Your task to perform on an android device: turn notification dots on Image 0: 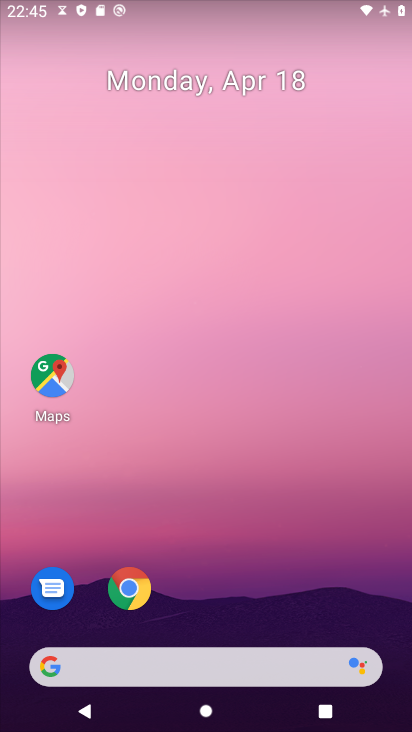
Step 0: drag from (355, 538) to (66, 3)
Your task to perform on an android device: turn notification dots on Image 1: 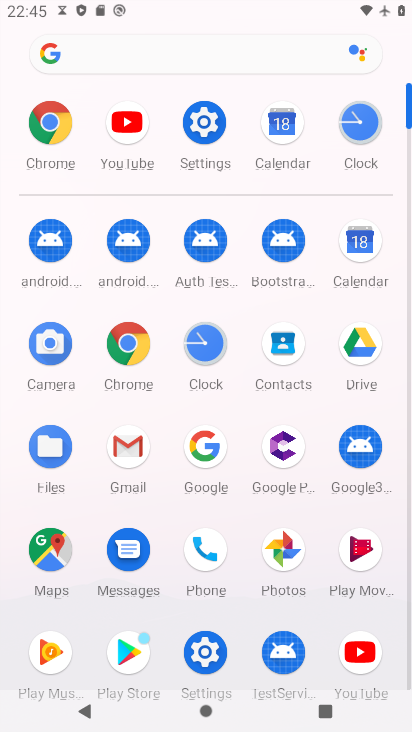
Step 1: click (206, 121)
Your task to perform on an android device: turn notification dots on Image 2: 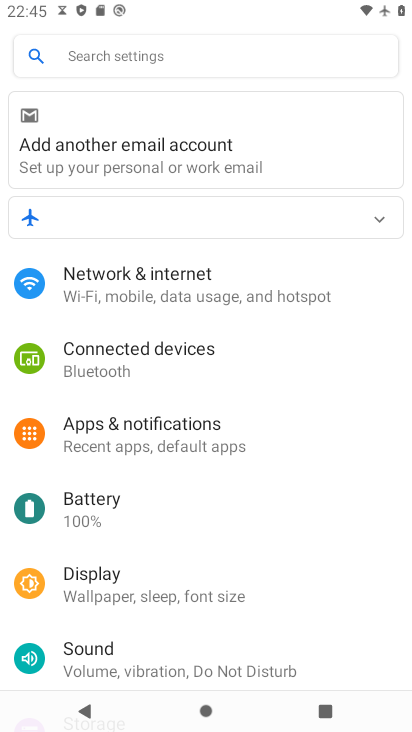
Step 2: drag from (336, 512) to (298, 108)
Your task to perform on an android device: turn notification dots on Image 3: 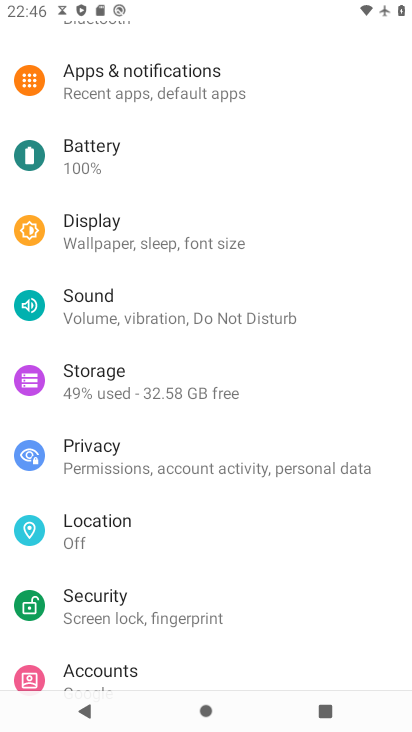
Step 3: drag from (297, 117) to (296, 395)
Your task to perform on an android device: turn notification dots on Image 4: 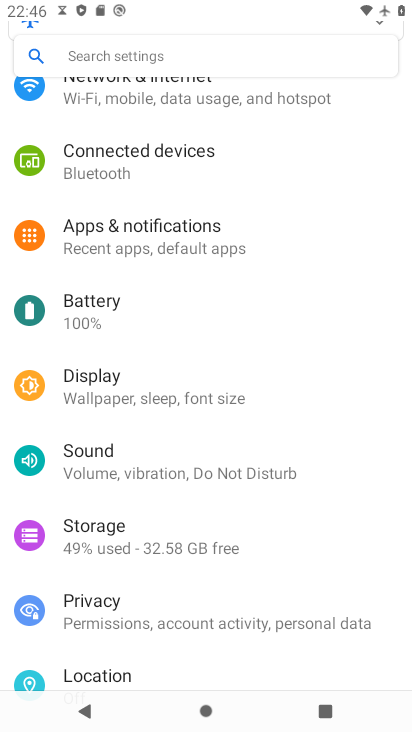
Step 4: drag from (269, 178) to (279, 412)
Your task to perform on an android device: turn notification dots on Image 5: 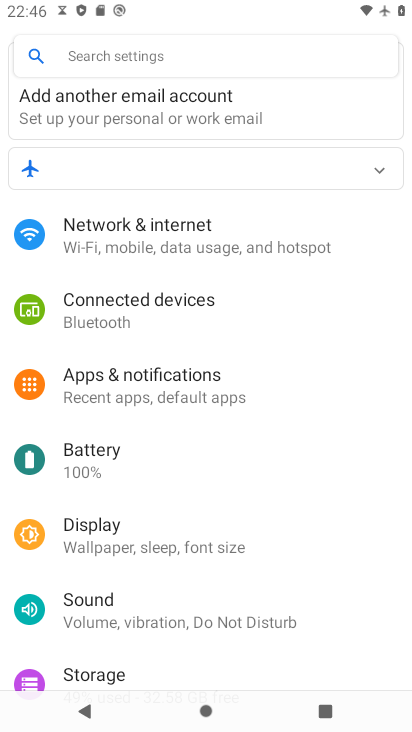
Step 5: drag from (320, 420) to (303, 114)
Your task to perform on an android device: turn notification dots on Image 6: 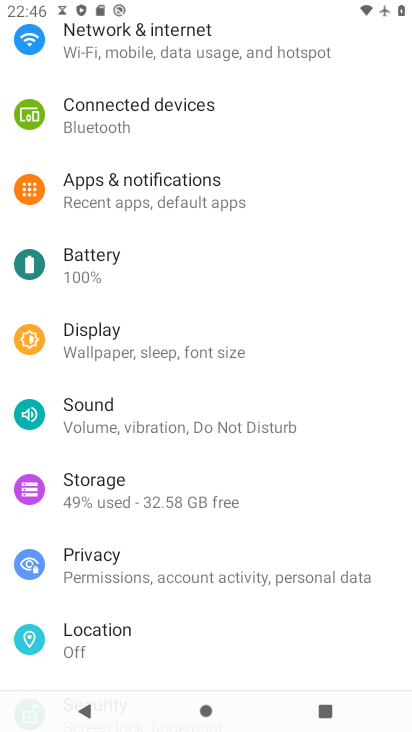
Step 6: click (160, 182)
Your task to perform on an android device: turn notification dots on Image 7: 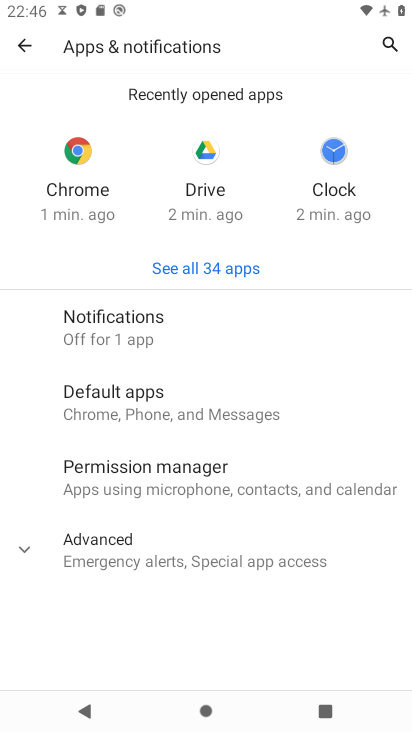
Step 7: click (176, 303)
Your task to perform on an android device: turn notification dots on Image 8: 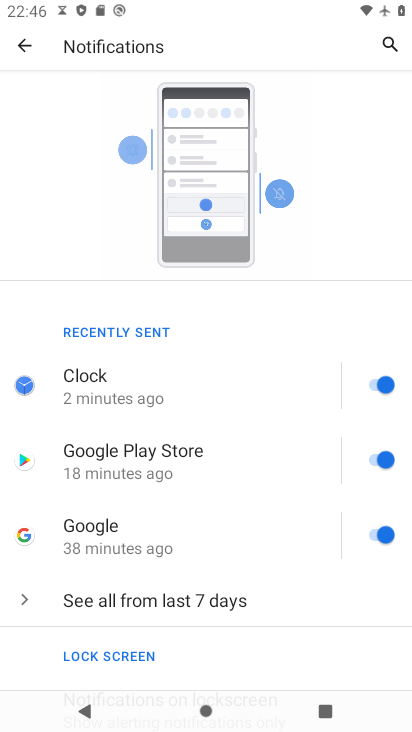
Step 8: drag from (241, 539) to (200, 102)
Your task to perform on an android device: turn notification dots on Image 9: 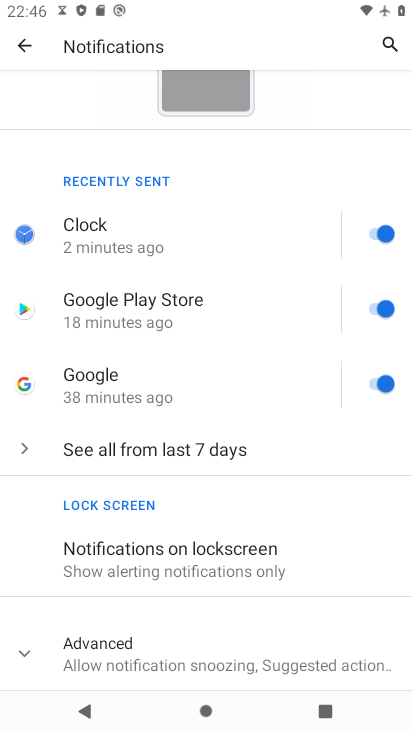
Step 9: click (246, 653)
Your task to perform on an android device: turn notification dots on Image 10: 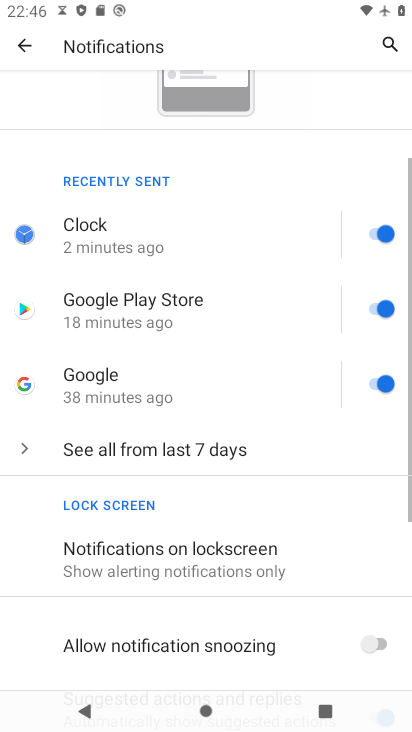
Step 10: task complete